Your task to perform on an android device: Go to accessibility settings Image 0: 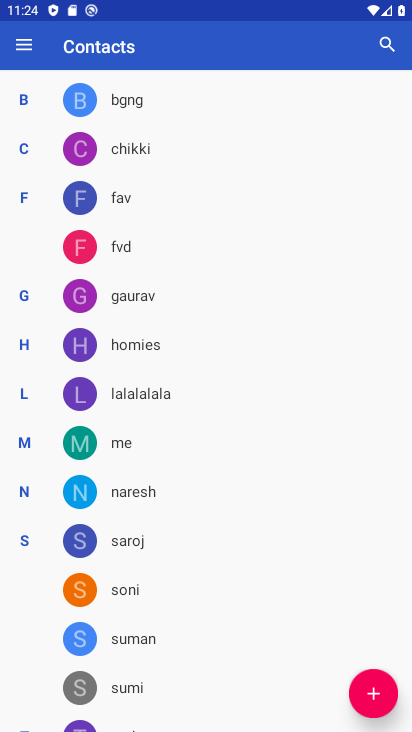
Step 0: press home button
Your task to perform on an android device: Go to accessibility settings Image 1: 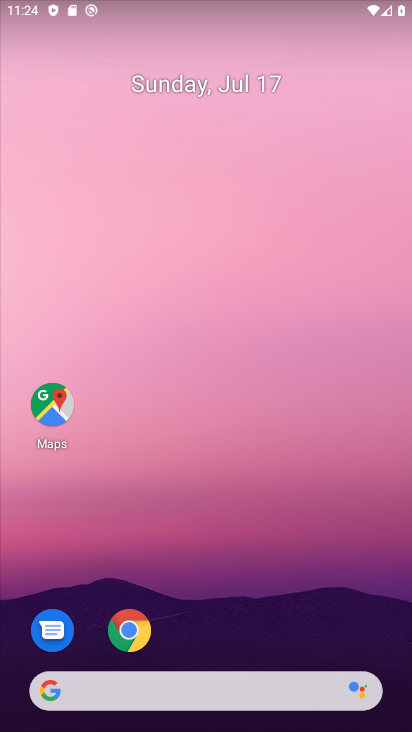
Step 1: drag from (194, 656) to (158, 102)
Your task to perform on an android device: Go to accessibility settings Image 2: 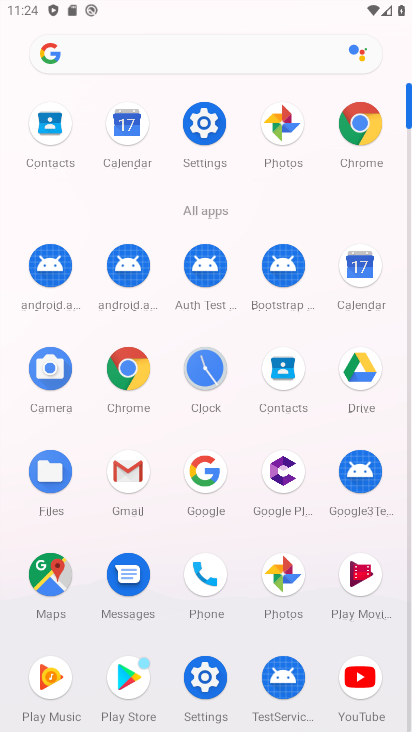
Step 2: click (214, 682)
Your task to perform on an android device: Go to accessibility settings Image 3: 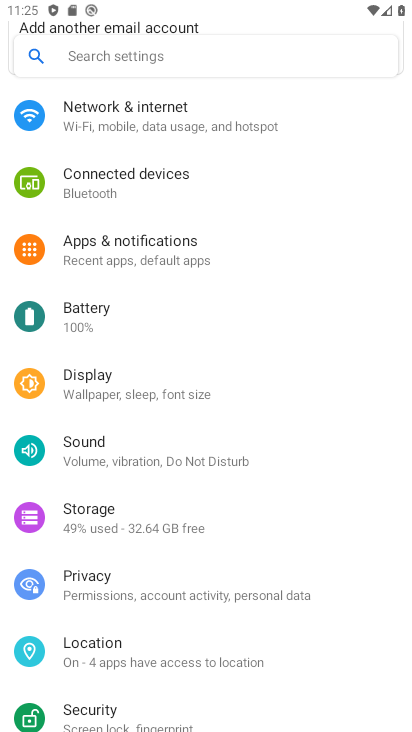
Step 3: drag from (143, 603) to (182, 406)
Your task to perform on an android device: Go to accessibility settings Image 4: 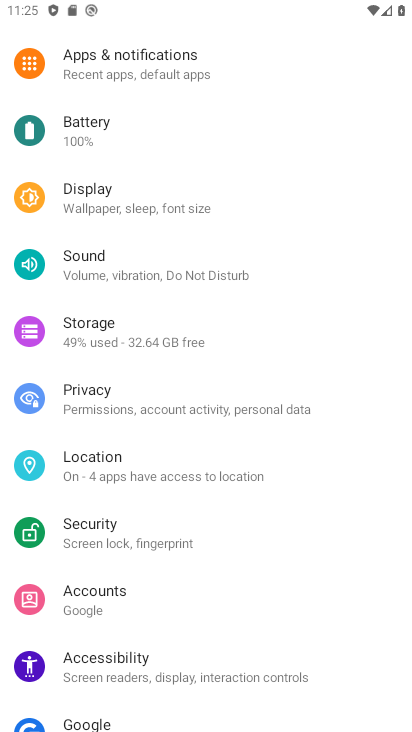
Step 4: click (109, 669)
Your task to perform on an android device: Go to accessibility settings Image 5: 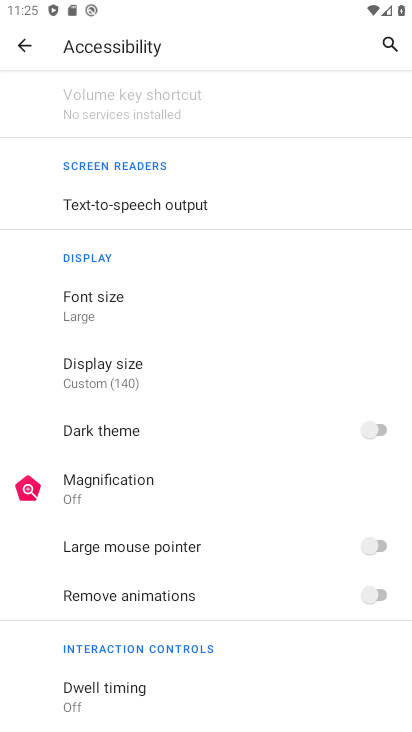
Step 5: task complete